Your task to perform on an android device: open chrome privacy settings Image 0: 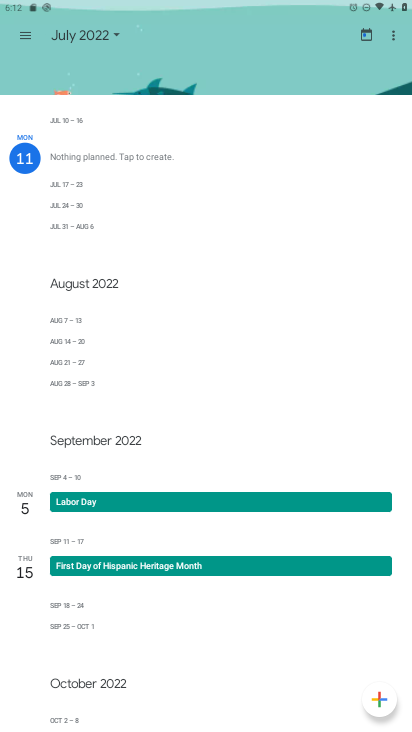
Step 0: press home button
Your task to perform on an android device: open chrome privacy settings Image 1: 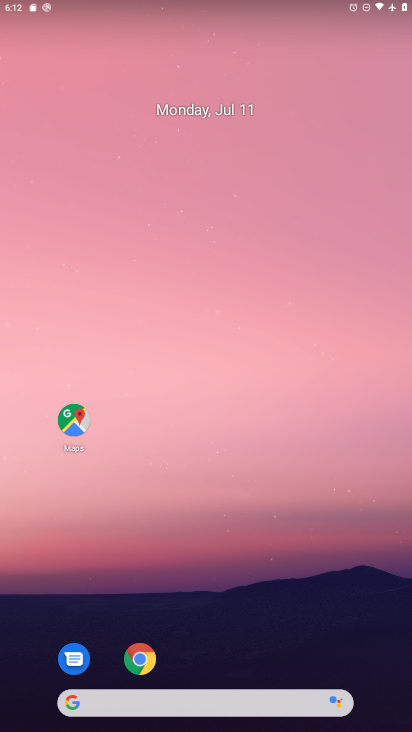
Step 1: click (139, 659)
Your task to perform on an android device: open chrome privacy settings Image 2: 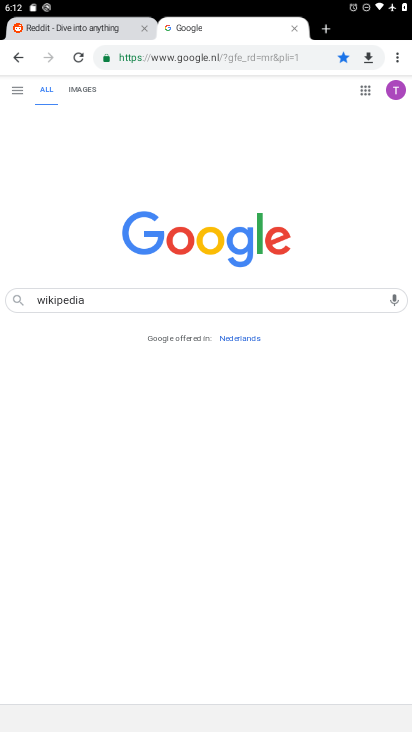
Step 2: click (399, 61)
Your task to perform on an android device: open chrome privacy settings Image 3: 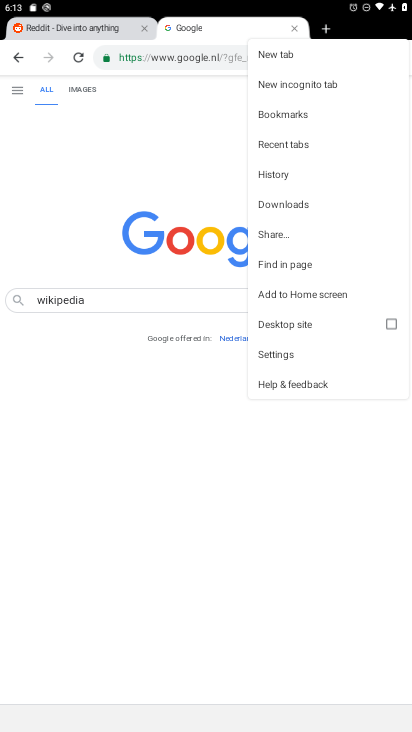
Step 3: click (284, 355)
Your task to perform on an android device: open chrome privacy settings Image 4: 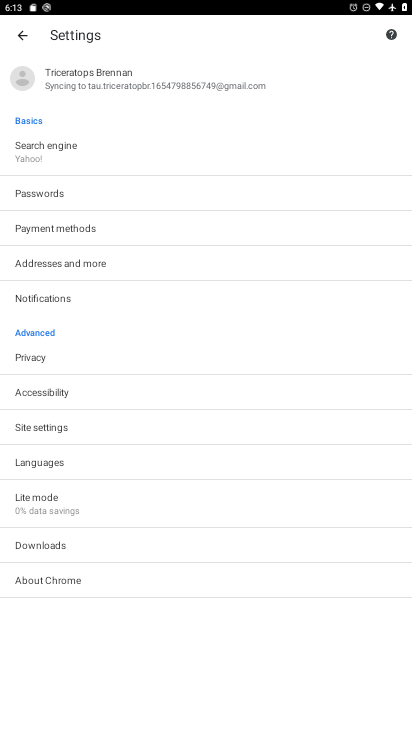
Step 4: click (33, 359)
Your task to perform on an android device: open chrome privacy settings Image 5: 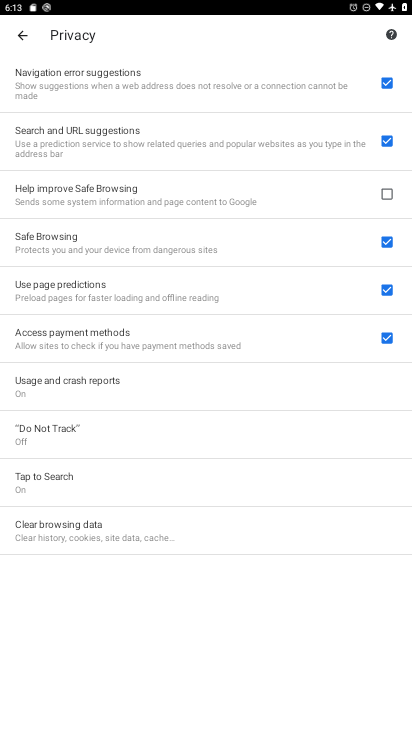
Step 5: task complete